Your task to perform on an android device: What's on my calendar today? Image 0: 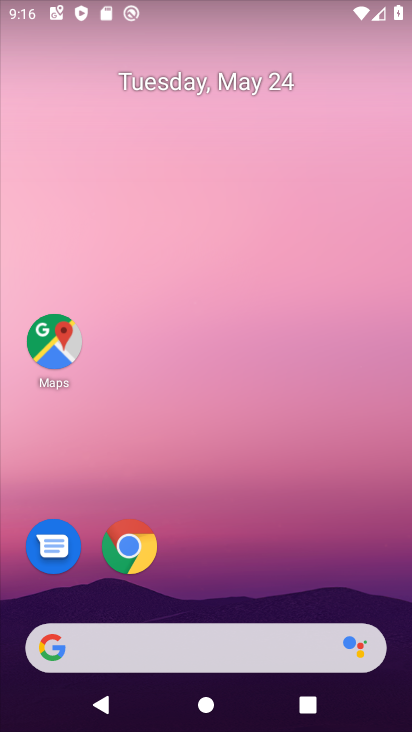
Step 0: drag from (242, 627) to (244, 259)
Your task to perform on an android device: What's on my calendar today? Image 1: 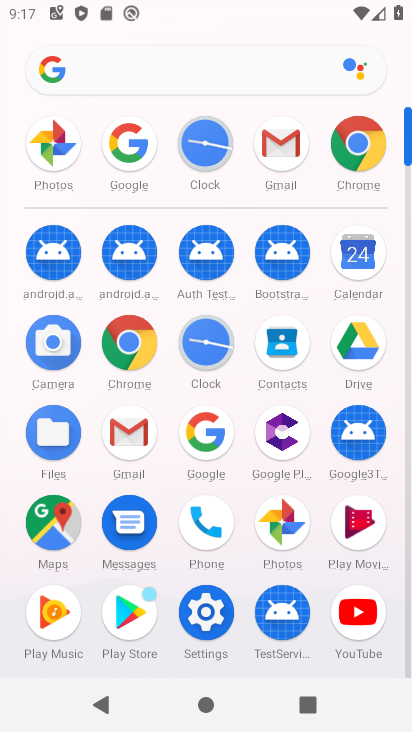
Step 1: click (345, 249)
Your task to perform on an android device: What's on my calendar today? Image 2: 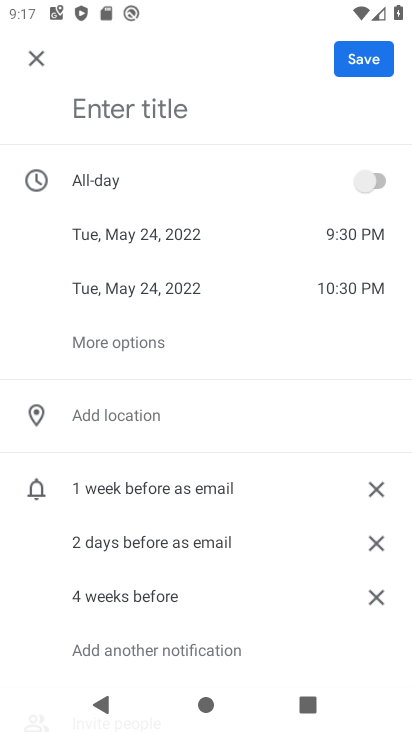
Step 2: click (38, 54)
Your task to perform on an android device: What's on my calendar today? Image 3: 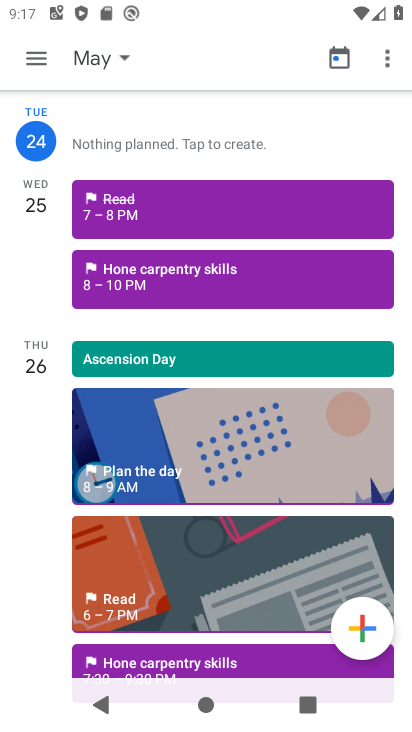
Step 3: click (161, 148)
Your task to perform on an android device: What's on my calendar today? Image 4: 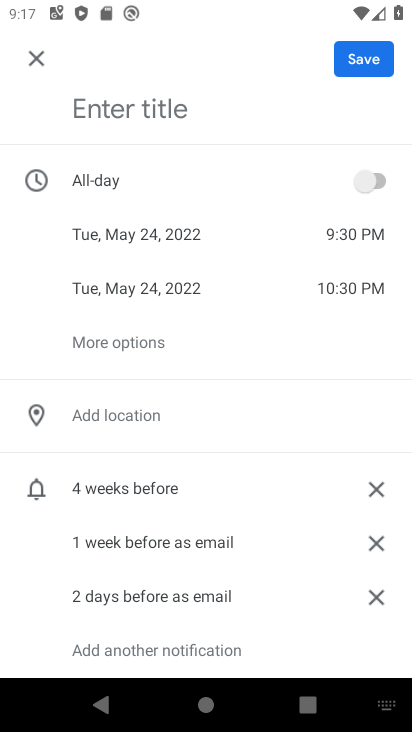
Step 4: task complete